Your task to perform on an android device: see tabs open on other devices in the chrome app Image 0: 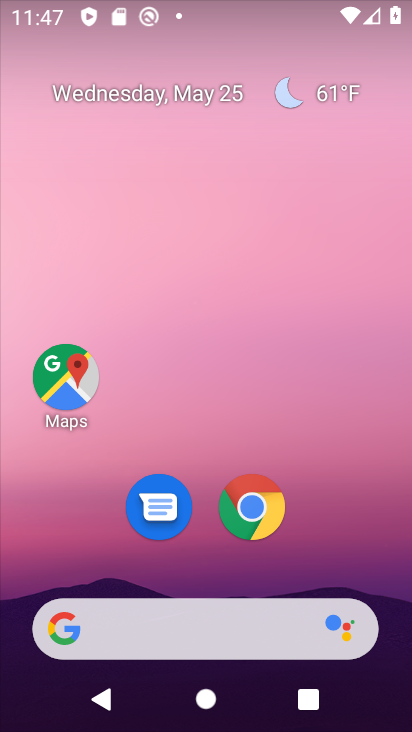
Step 0: click (256, 521)
Your task to perform on an android device: see tabs open on other devices in the chrome app Image 1: 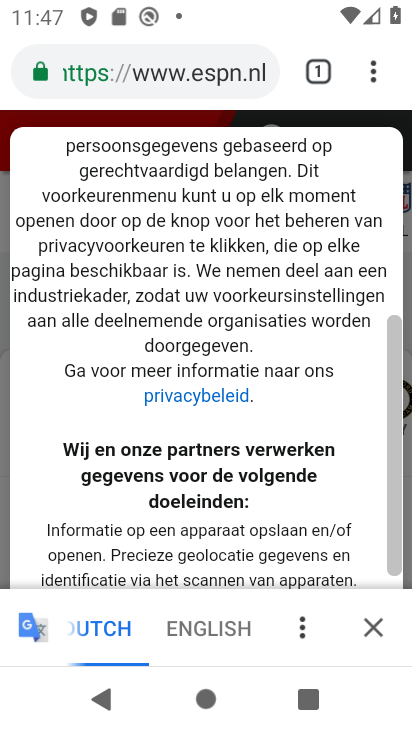
Step 1: click (303, 79)
Your task to perform on an android device: see tabs open on other devices in the chrome app Image 2: 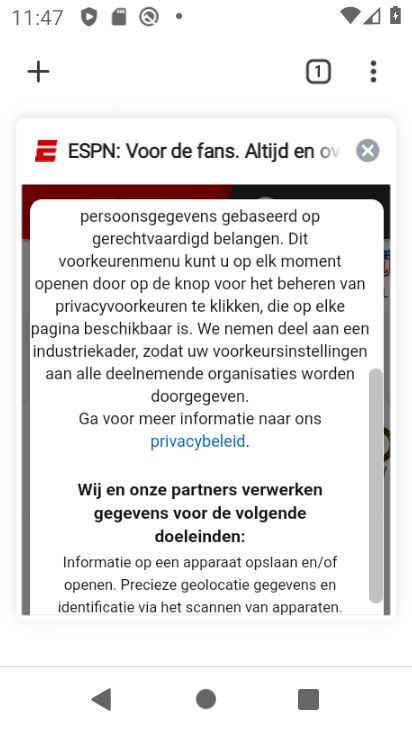
Step 2: click (41, 63)
Your task to perform on an android device: see tabs open on other devices in the chrome app Image 3: 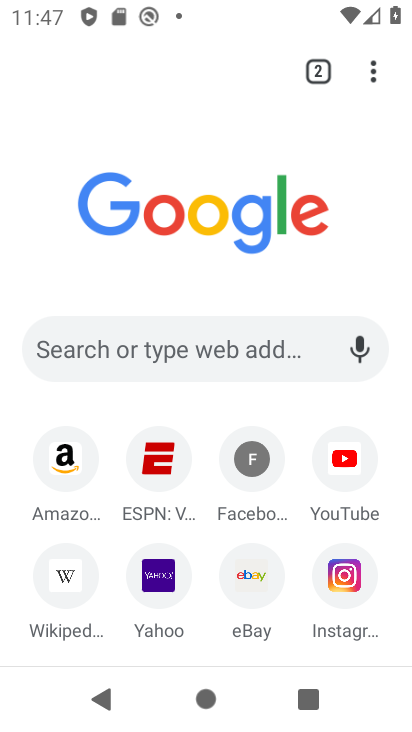
Step 3: task complete